Your task to perform on an android device: delete the emails in spam in the gmail app Image 0: 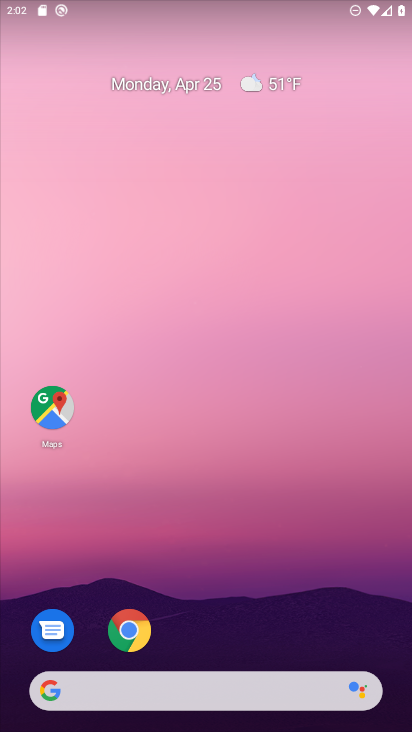
Step 0: drag from (250, 375) to (250, 116)
Your task to perform on an android device: delete the emails in spam in the gmail app Image 1: 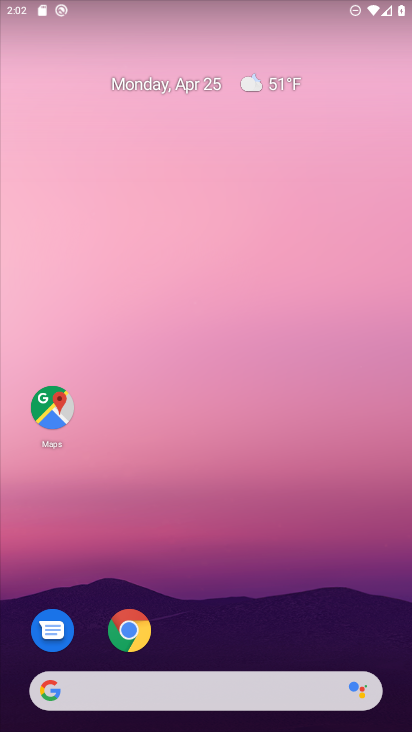
Step 1: drag from (271, 449) to (380, 4)
Your task to perform on an android device: delete the emails in spam in the gmail app Image 2: 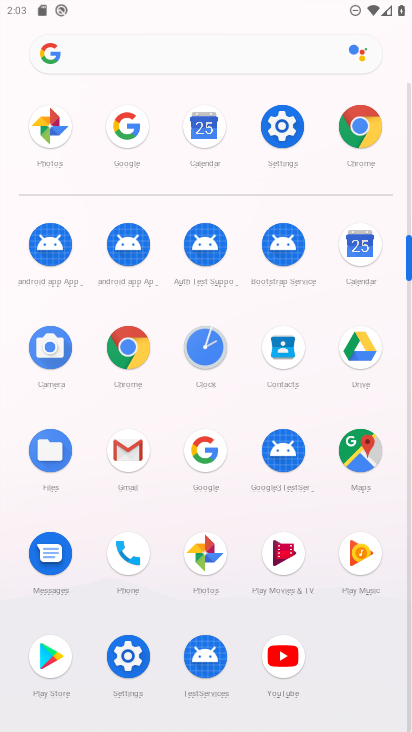
Step 2: click (124, 455)
Your task to perform on an android device: delete the emails in spam in the gmail app Image 3: 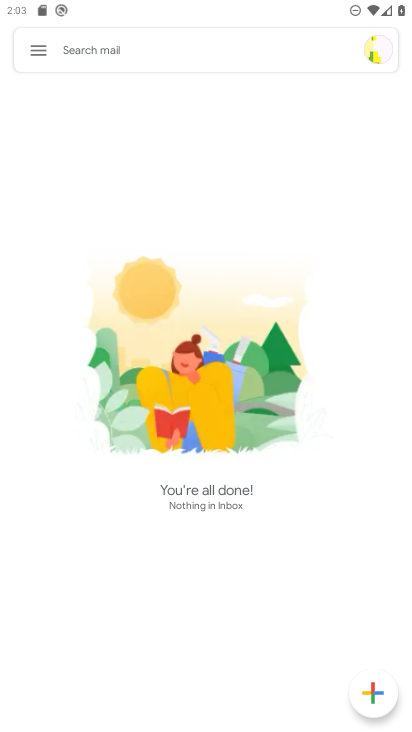
Step 3: click (42, 58)
Your task to perform on an android device: delete the emails in spam in the gmail app Image 4: 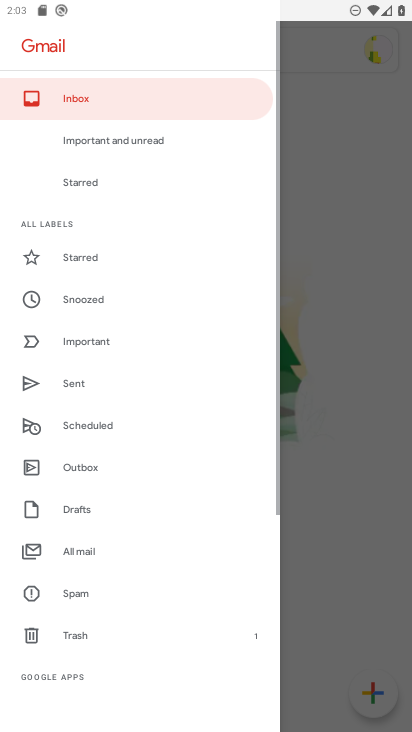
Step 4: click (328, 356)
Your task to perform on an android device: delete the emails in spam in the gmail app Image 5: 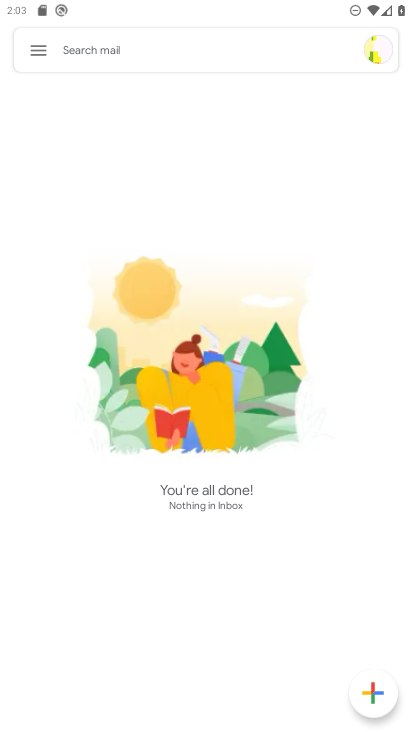
Step 5: task complete